Your task to perform on an android device: choose inbox layout in the gmail app Image 0: 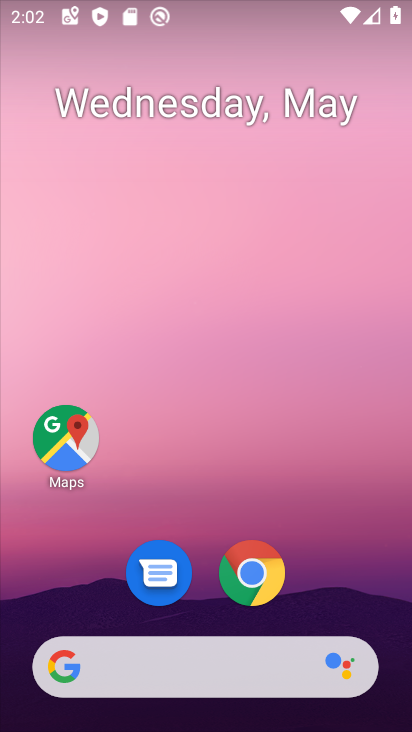
Step 0: drag from (201, 508) to (230, 23)
Your task to perform on an android device: choose inbox layout in the gmail app Image 1: 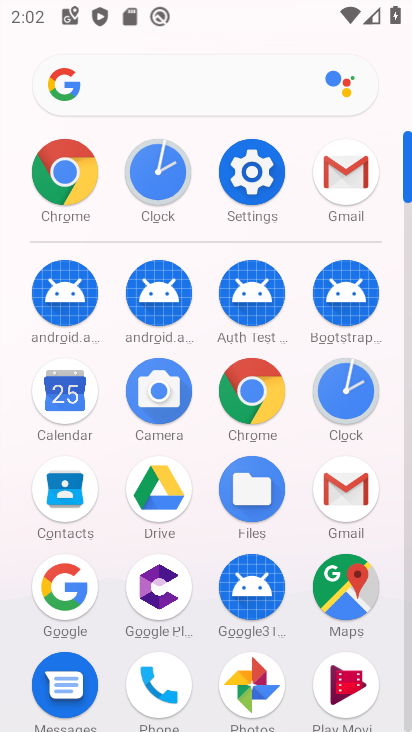
Step 1: click (346, 163)
Your task to perform on an android device: choose inbox layout in the gmail app Image 2: 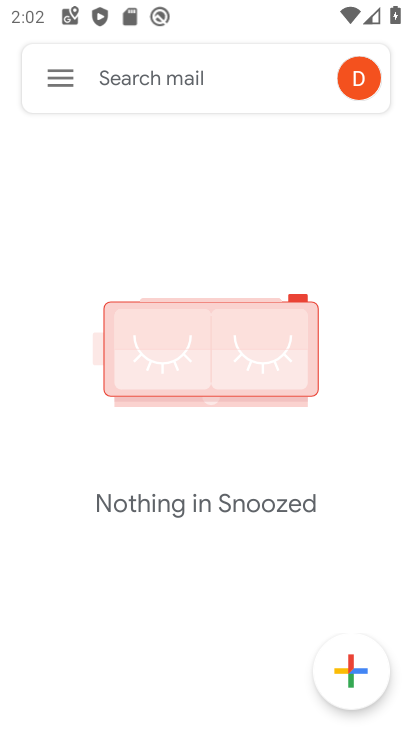
Step 2: click (55, 78)
Your task to perform on an android device: choose inbox layout in the gmail app Image 3: 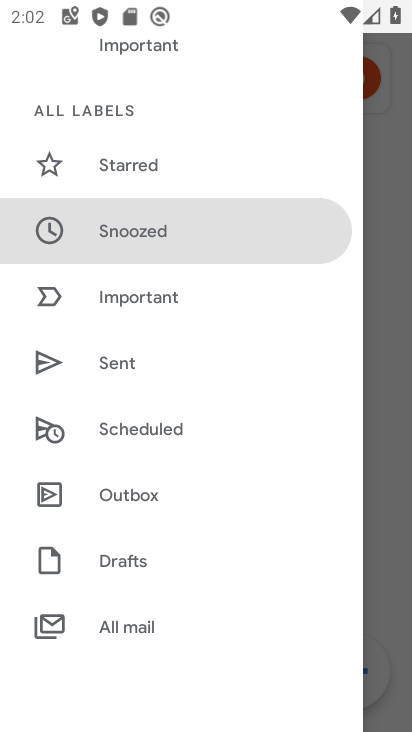
Step 3: drag from (135, 587) to (170, 264)
Your task to perform on an android device: choose inbox layout in the gmail app Image 4: 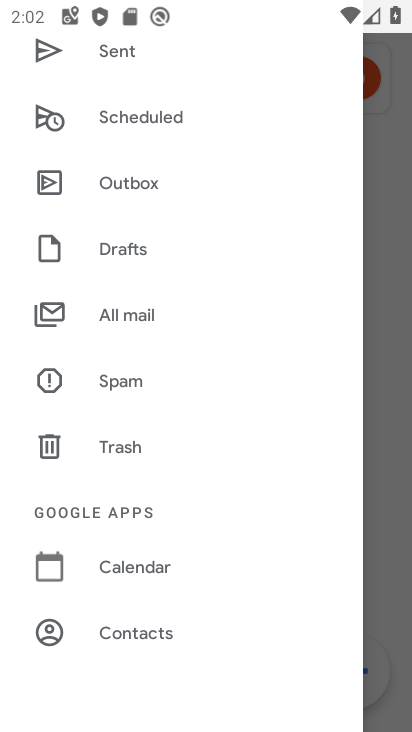
Step 4: click (194, 495)
Your task to perform on an android device: choose inbox layout in the gmail app Image 5: 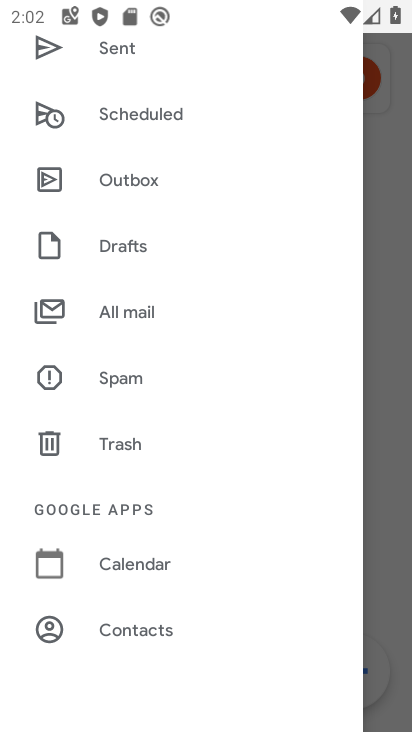
Step 5: drag from (116, 636) to (120, 436)
Your task to perform on an android device: choose inbox layout in the gmail app Image 6: 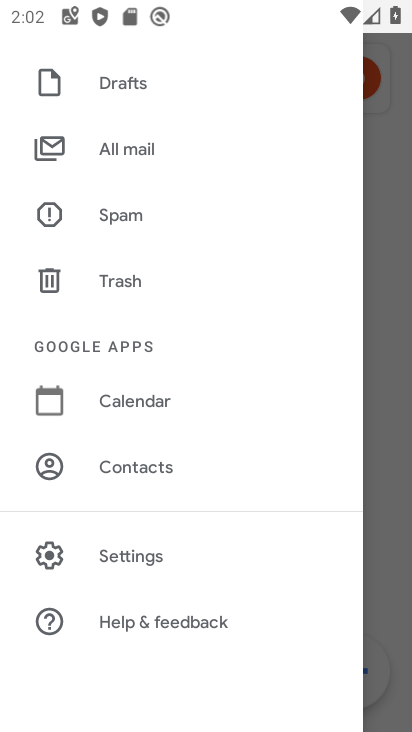
Step 6: click (145, 547)
Your task to perform on an android device: choose inbox layout in the gmail app Image 7: 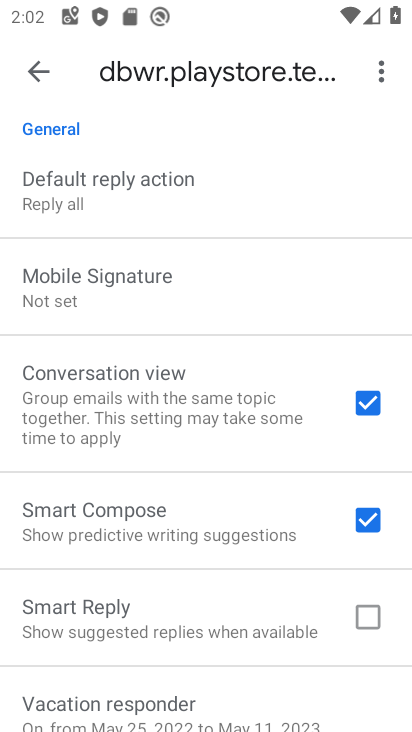
Step 7: drag from (107, 301) to (137, 689)
Your task to perform on an android device: choose inbox layout in the gmail app Image 8: 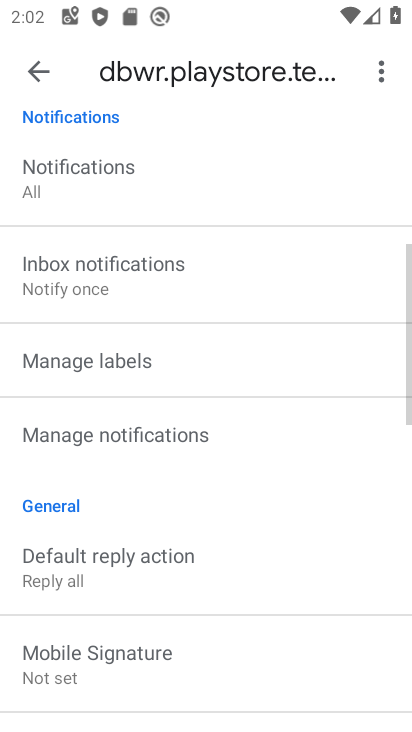
Step 8: drag from (114, 266) to (110, 652)
Your task to perform on an android device: choose inbox layout in the gmail app Image 9: 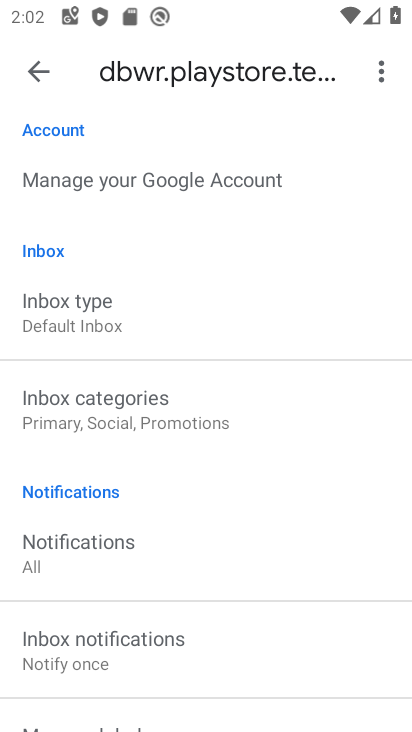
Step 9: click (87, 310)
Your task to perform on an android device: choose inbox layout in the gmail app Image 10: 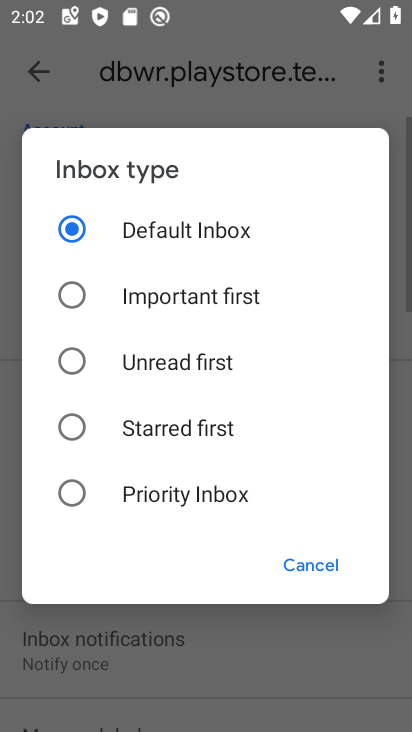
Step 10: click (111, 297)
Your task to perform on an android device: choose inbox layout in the gmail app Image 11: 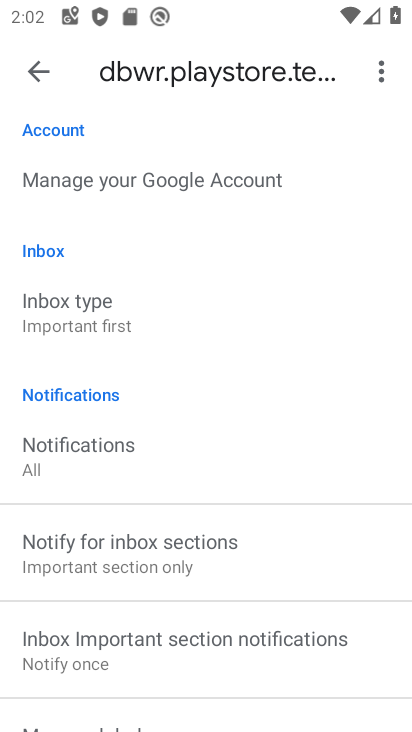
Step 11: task complete